Your task to perform on an android device: turn on the 12-hour format for clock Image 0: 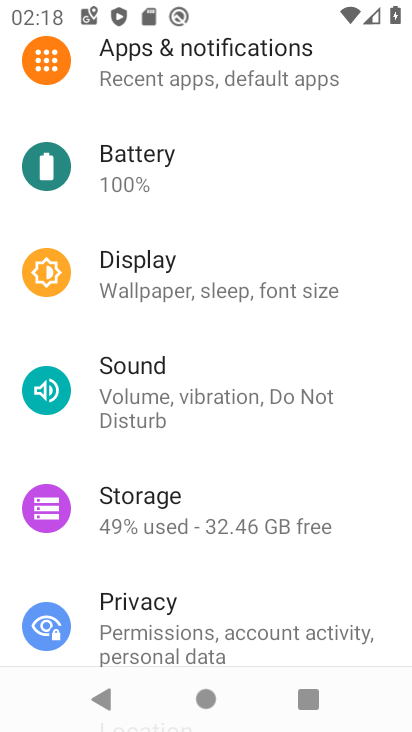
Step 0: press home button
Your task to perform on an android device: turn on the 12-hour format for clock Image 1: 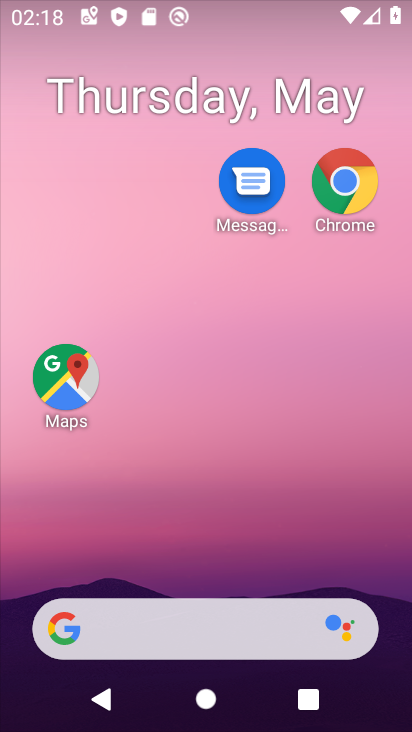
Step 1: drag from (309, 665) to (308, 84)
Your task to perform on an android device: turn on the 12-hour format for clock Image 2: 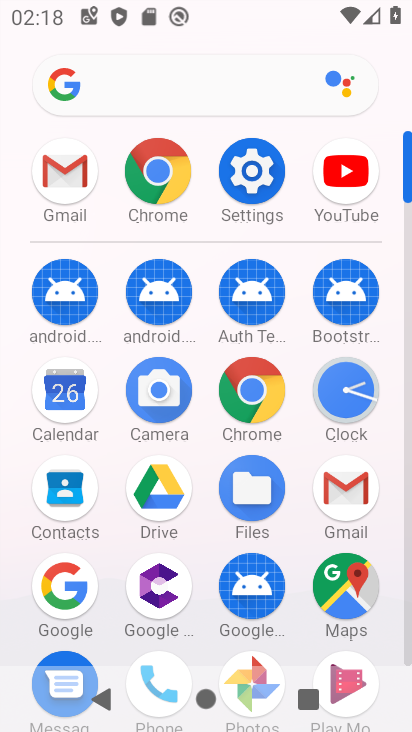
Step 2: click (359, 378)
Your task to perform on an android device: turn on the 12-hour format for clock Image 3: 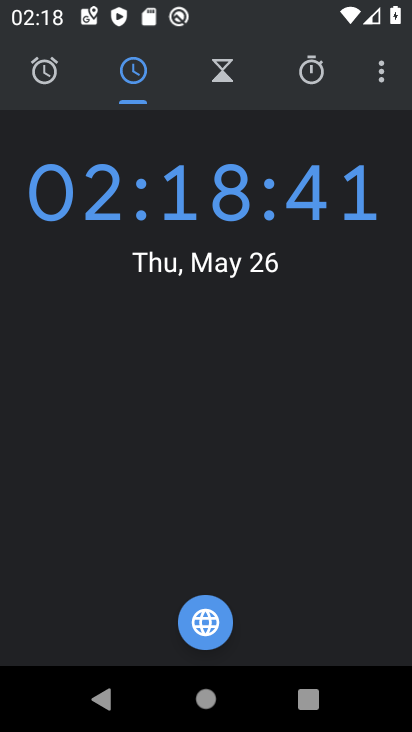
Step 3: click (382, 72)
Your task to perform on an android device: turn on the 12-hour format for clock Image 4: 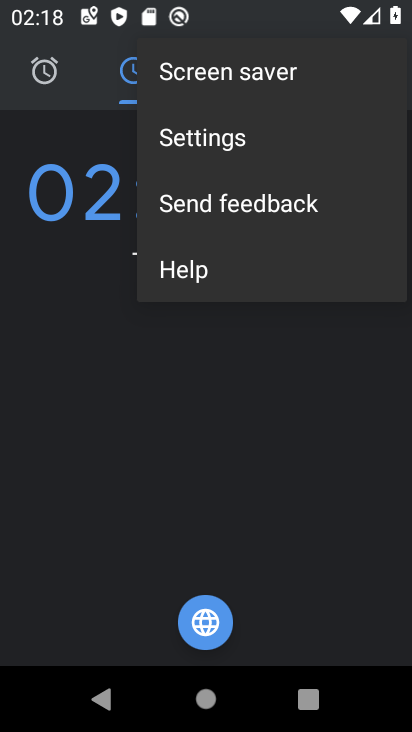
Step 4: click (237, 150)
Your task to perform on an android device: turn on the 12-hour format for clock Image 5: 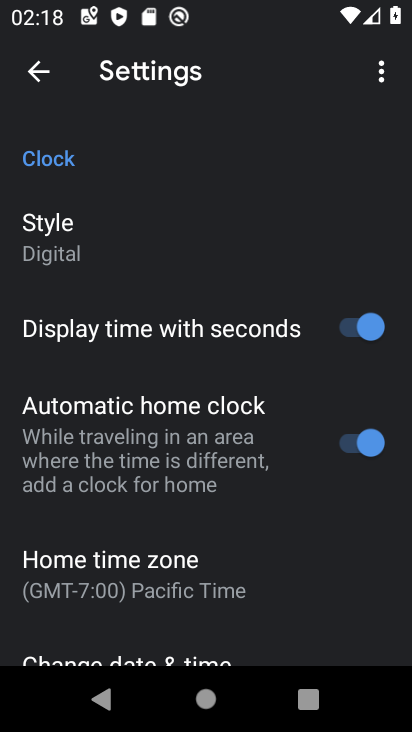
Step 5: drag from (209, 503) to (233, 6)
Your task to perform on an android device: turn on the 12-hour format for clock Image 6: 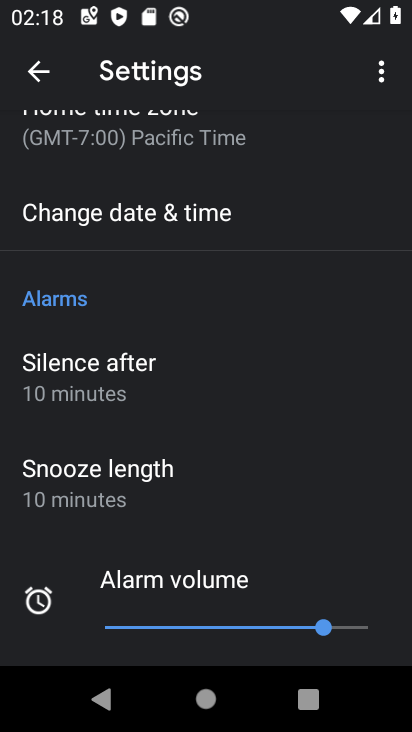
Step 6: click (185, 223)
Your task to perform on an android device: turn on the 12-hour format for clock Image 7: 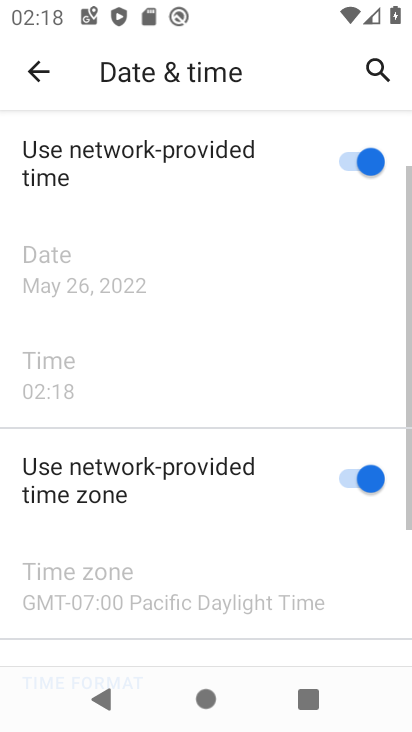
Step 7: drag from (243, 540) to (283, 4)
Your task to perform on an android device: turn on the 12-hour format for clock Image 8: 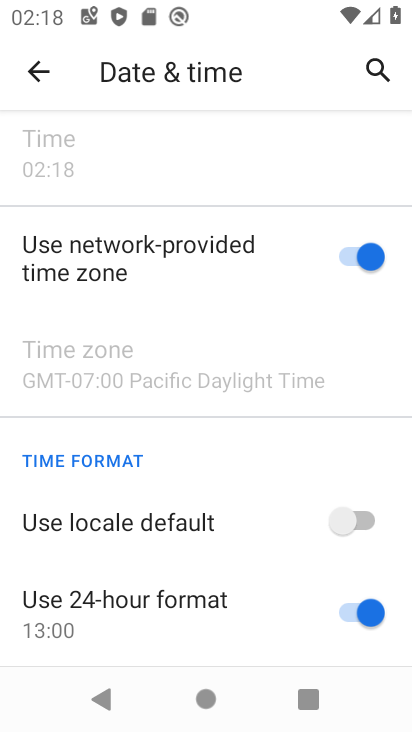
Step 8: click (351, 611)
Your task to perform on an android device: turn on the 12-hour format for clock Image 9: 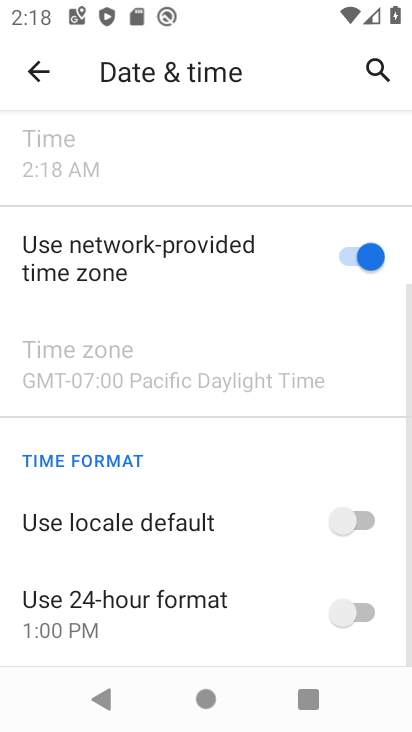
Step 9: task complete